Your task to perform on an android device: set default search engine in the chrome app Image 0: 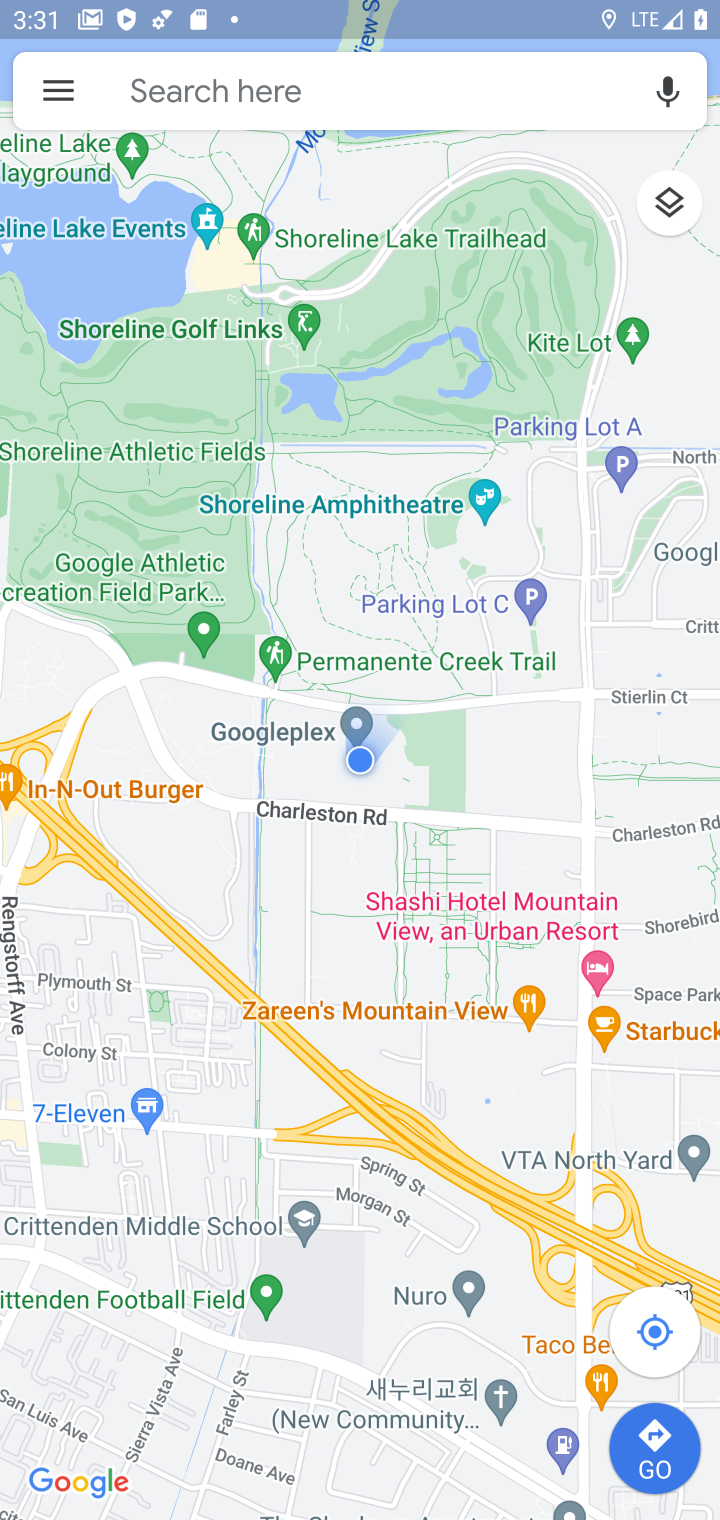
Step 0: press back button
Your task to perform on an android device: set default search engine in the chrome app Image 1: 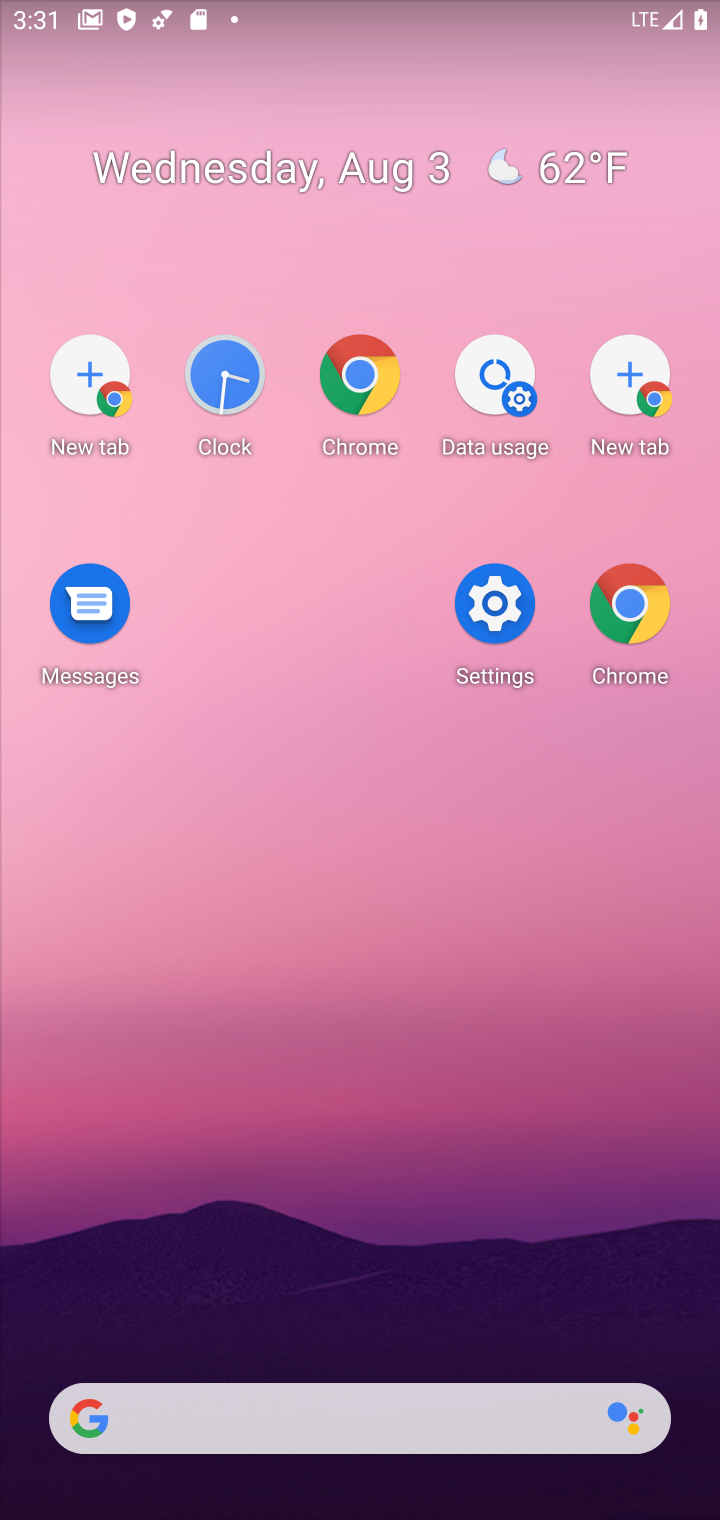
Step 1: click (457, 732)
Your task to perform on an android device: set default search engine in the chrome app Image 2: 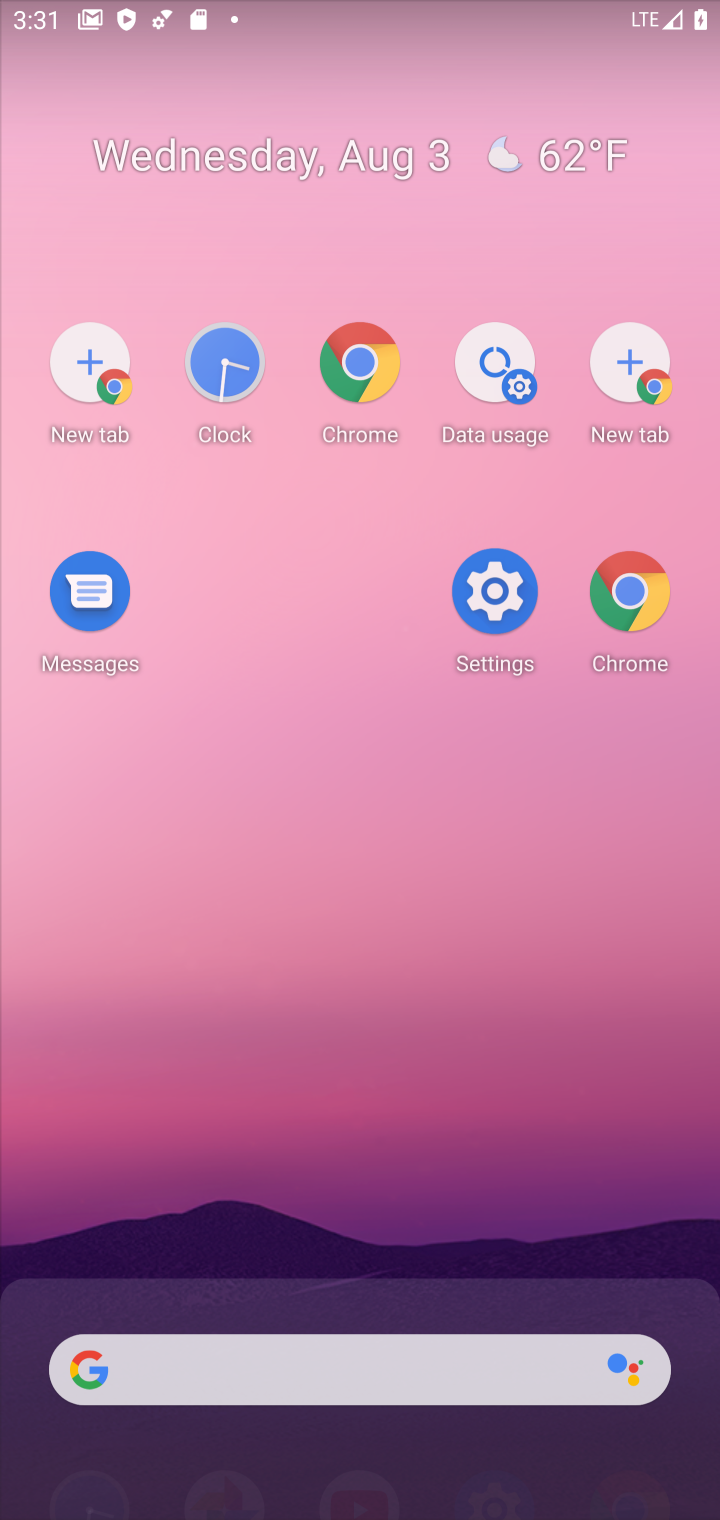
Step 2: drag from (545, 847) to (545, 490)
Your task to perform on an android device: set default search engine in the chrome app Image 3: 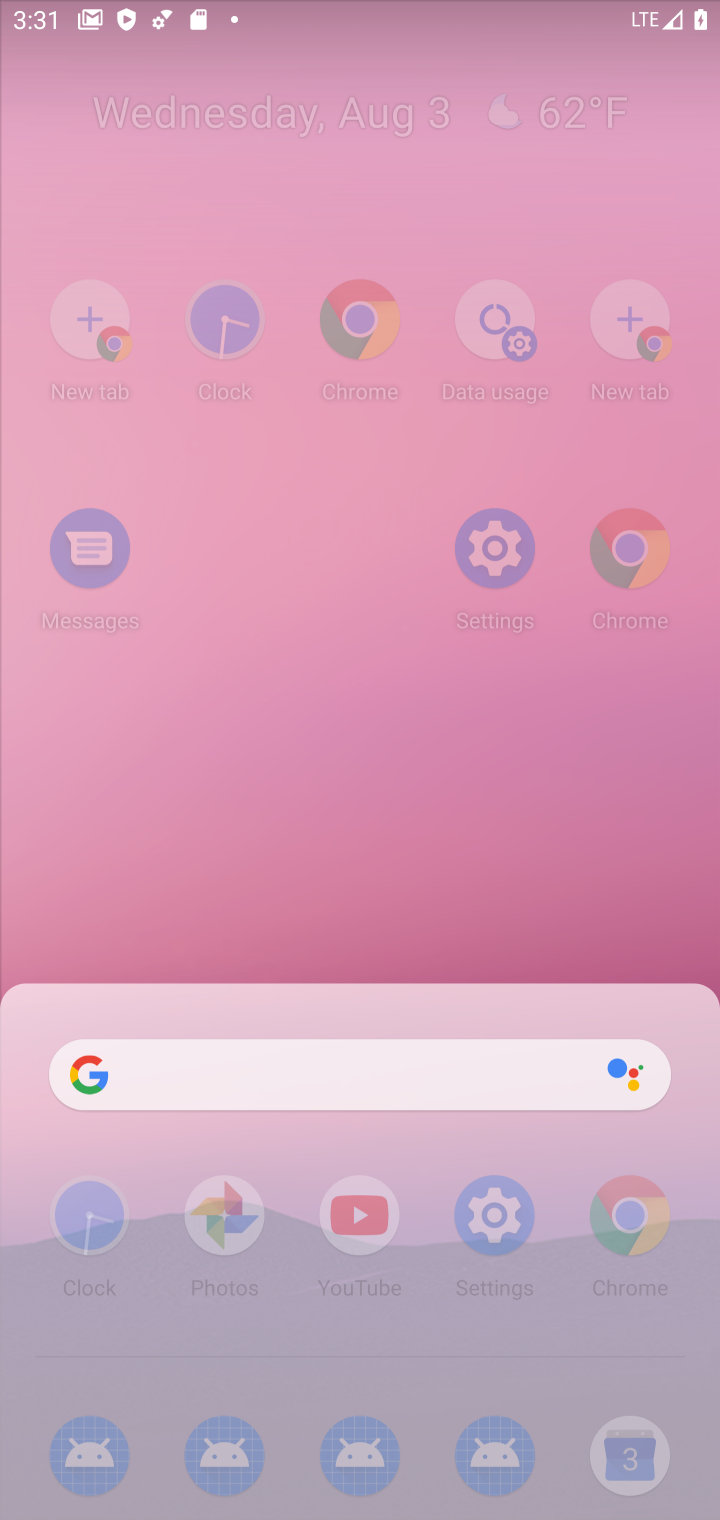
Step 3: drag from (373, 1036) to (383, 561)
Your task to perform on an android device: set default search engine in the chrome app Image 4: 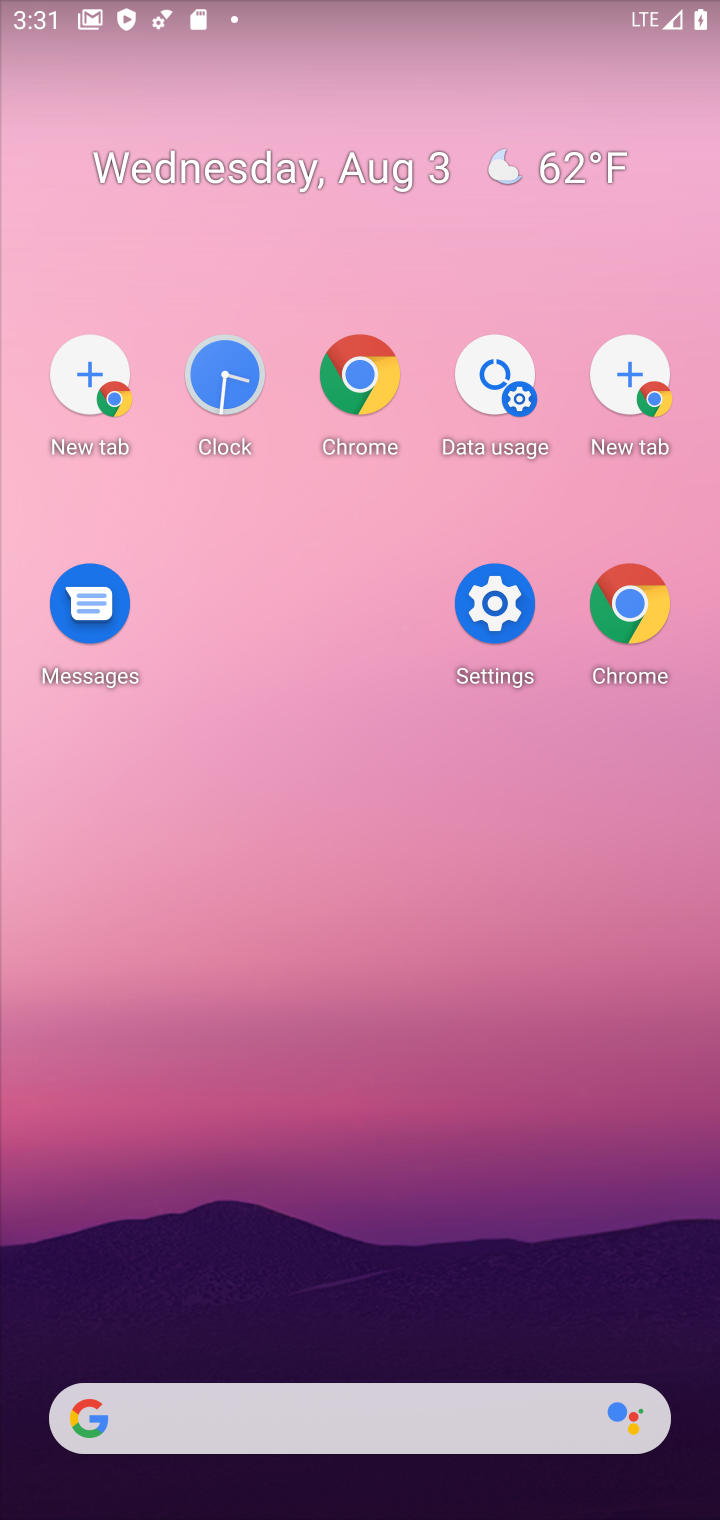
Step 4: drag from (412, 543) to (408, 666)
Your task to perform on an android device: set default search engine in the chrome app Image 5: 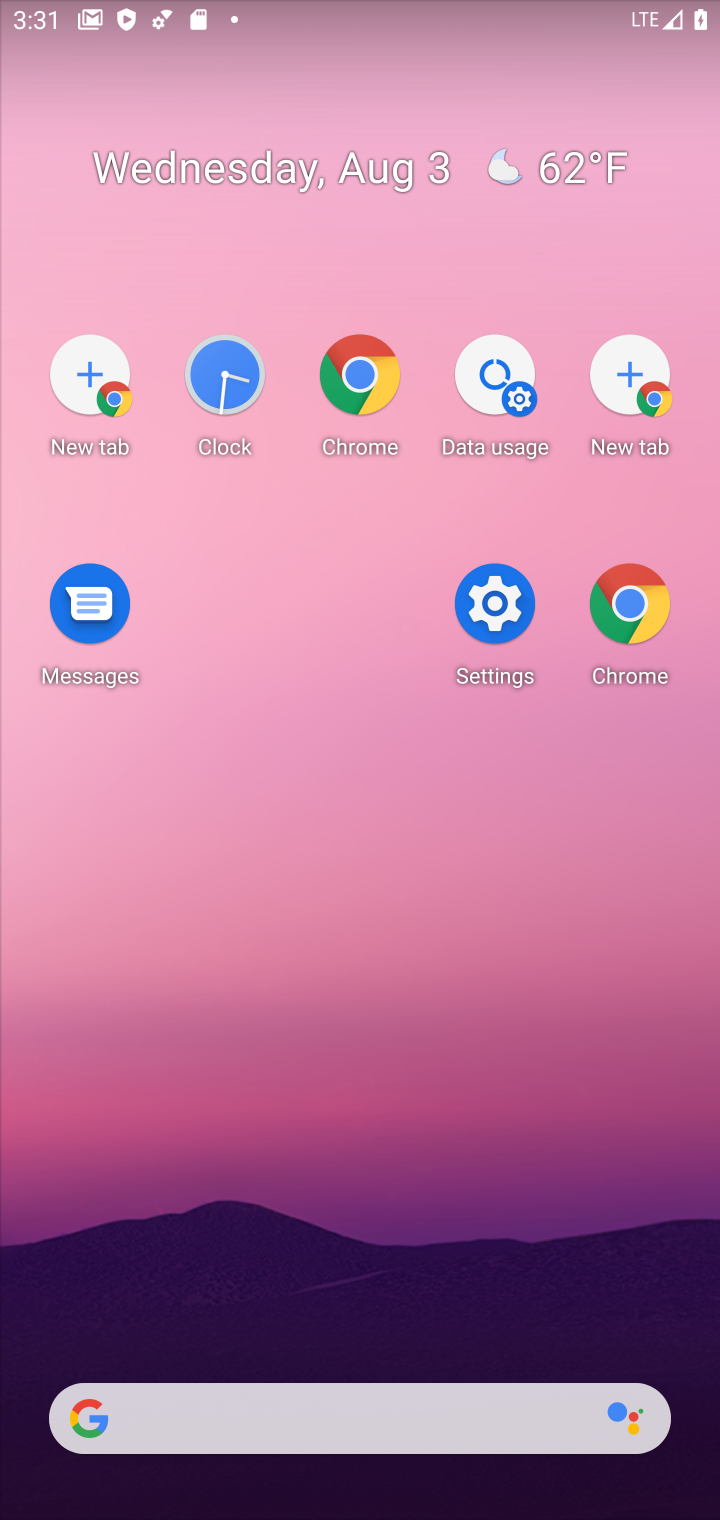
Step 5: click (240, 186)
Your task to perform on an android device: set default search engine in the chrome app Image 6: 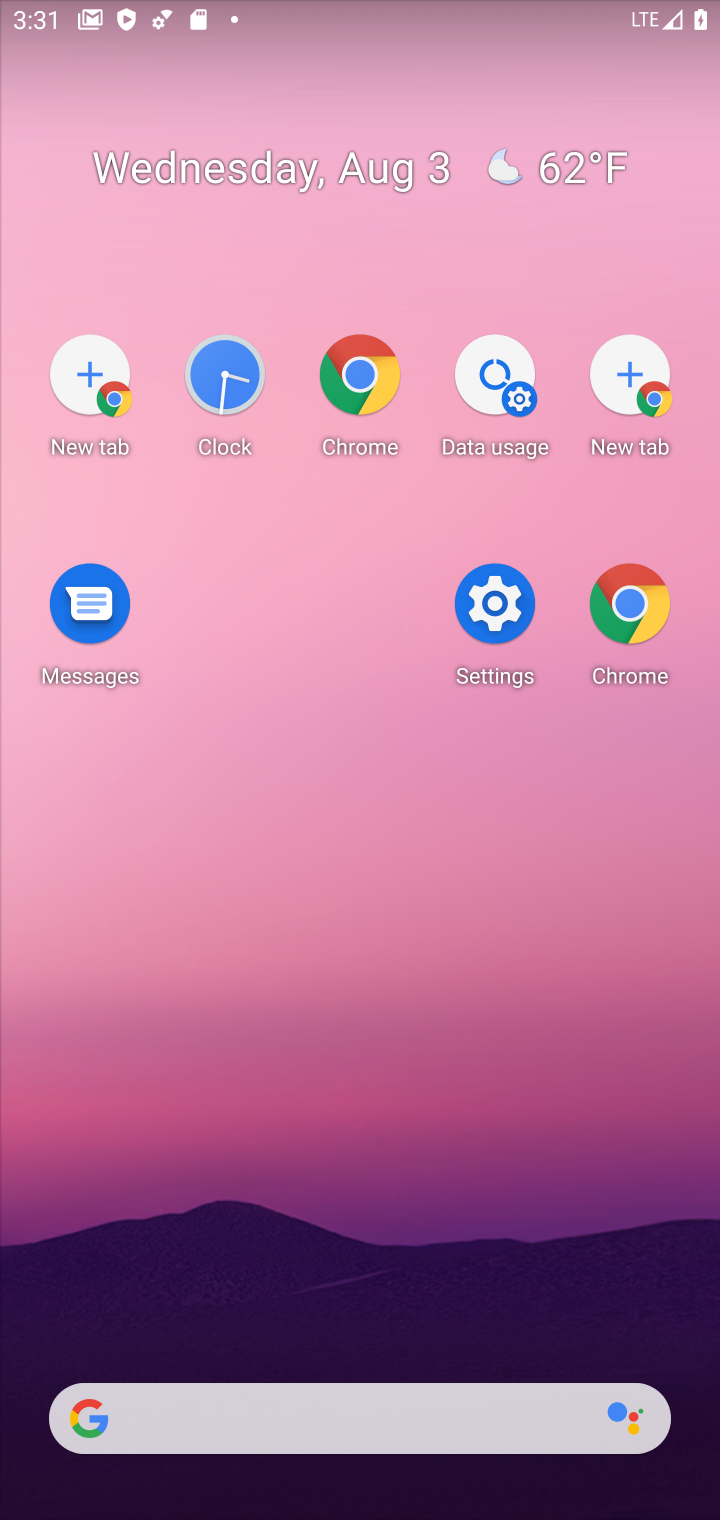
Step 6: drag from (427, 144) to (381, 236)
Your task to perform on an android device: set default search engine in the chrome app Image 7: 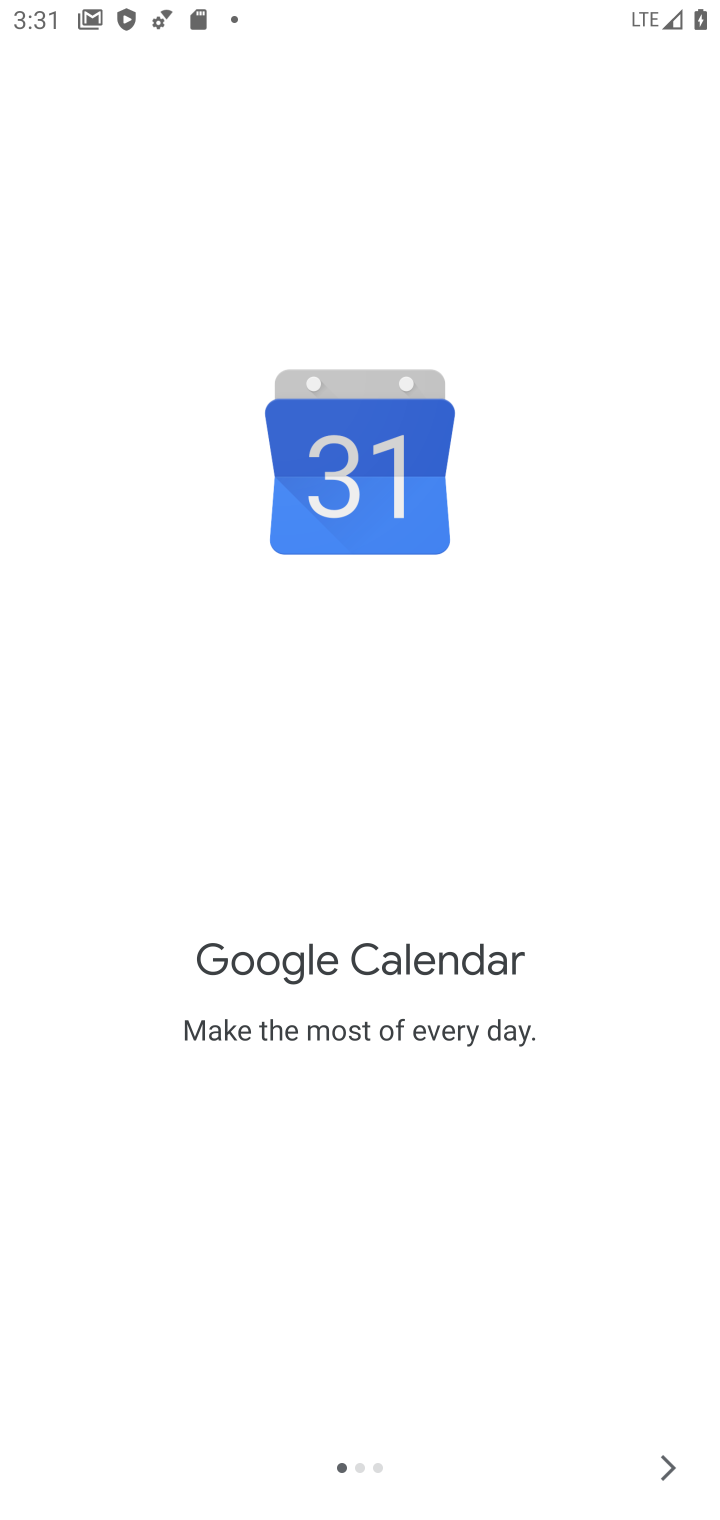
Step 7: press back button
Your task to perform on an android device: set default search engine in the chrome app Image 8: 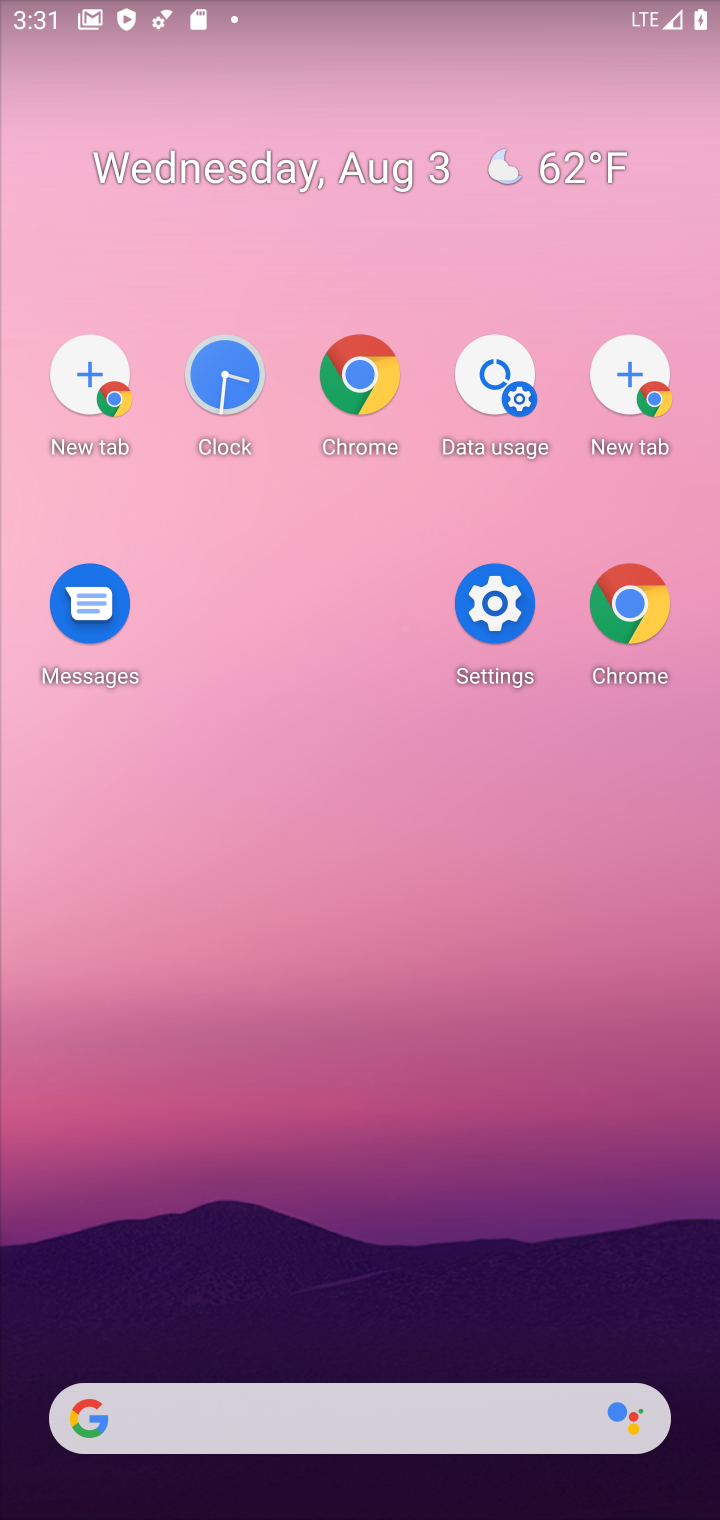
Step 8: drag from (402, 1253) to (370, 1176)
Your task to perform on an android device: set default search engine in the chrome app Image 9: 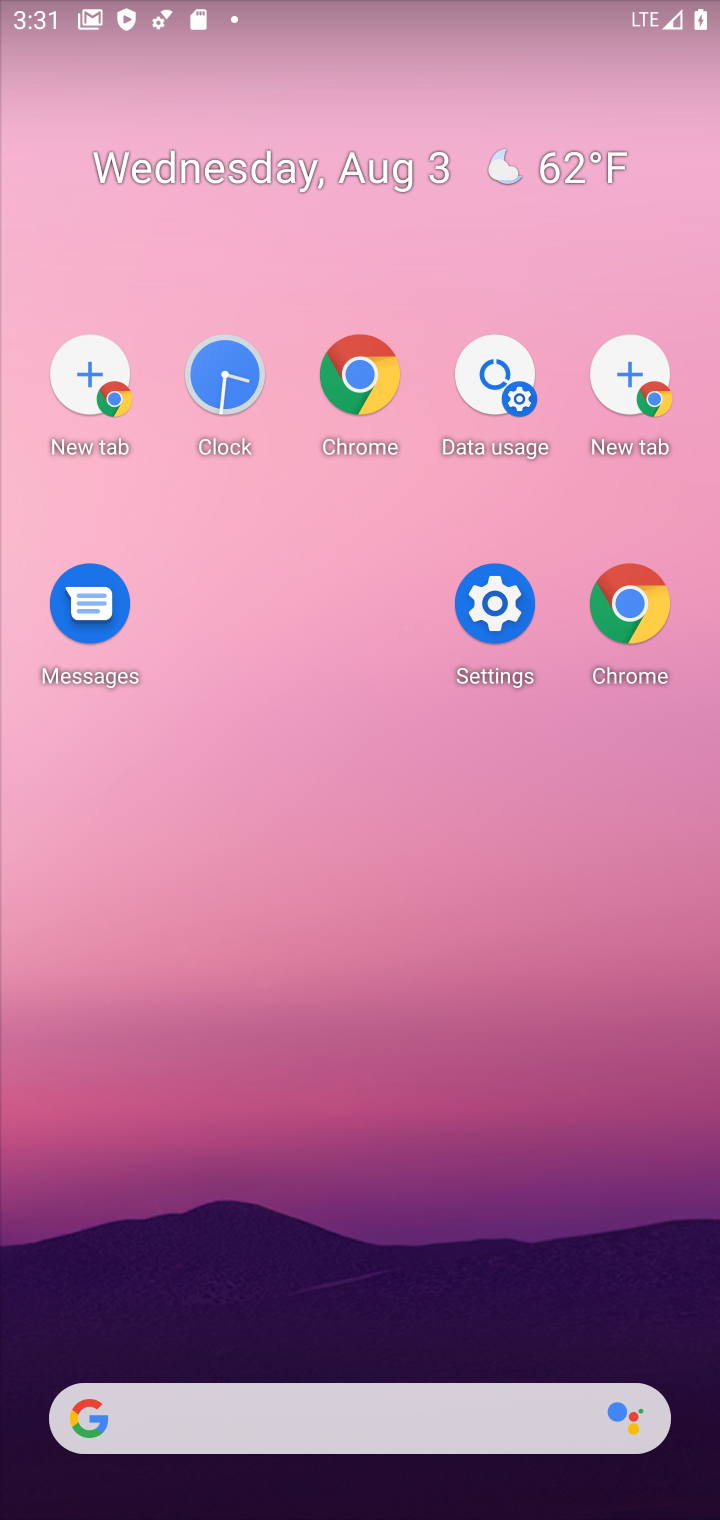
Step 9: drag from (361, 1213) to (449, 51)
Your task to perform on an android device: set default search engine in the chrome app Image 10: 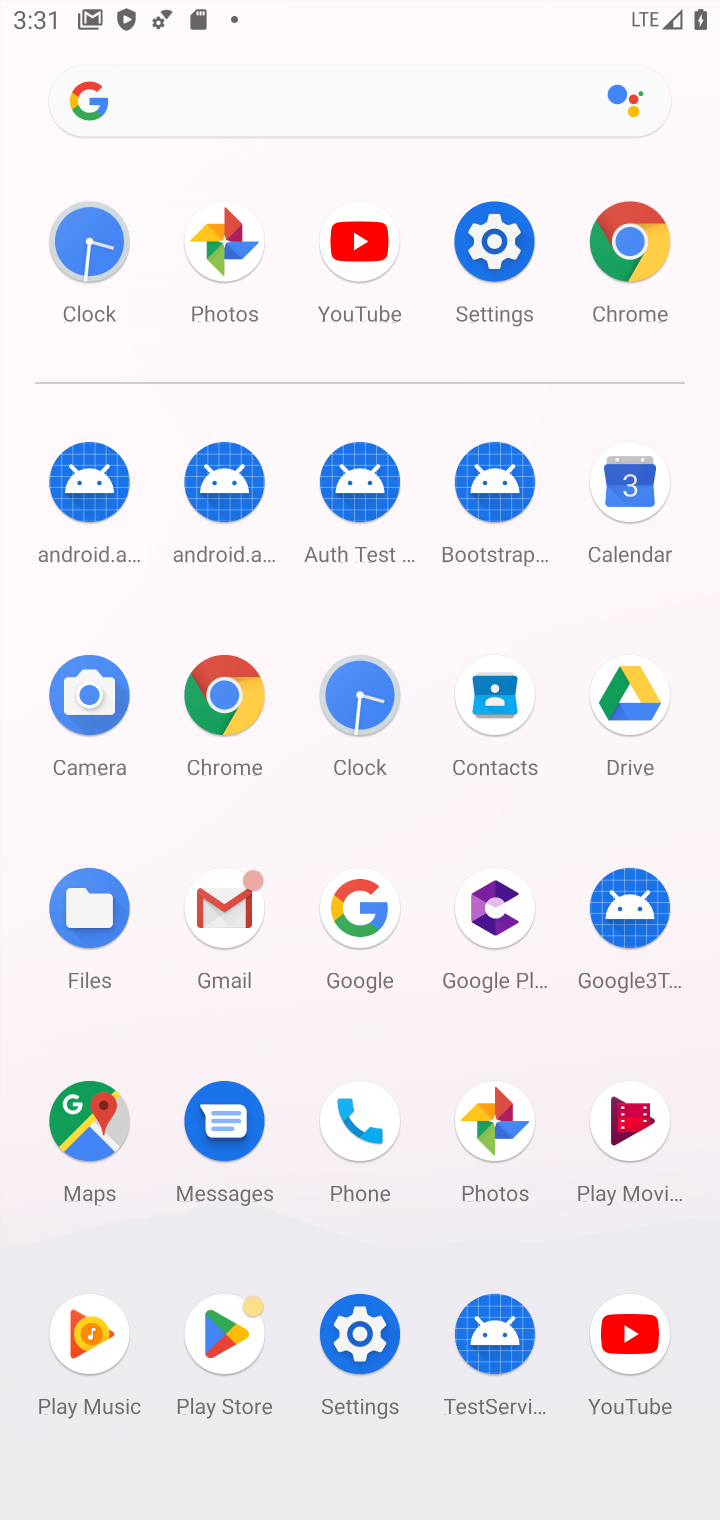
Step 10: click (619, 236)
Your task to perform on an android device: set default search engine in the chrome app Image 11: 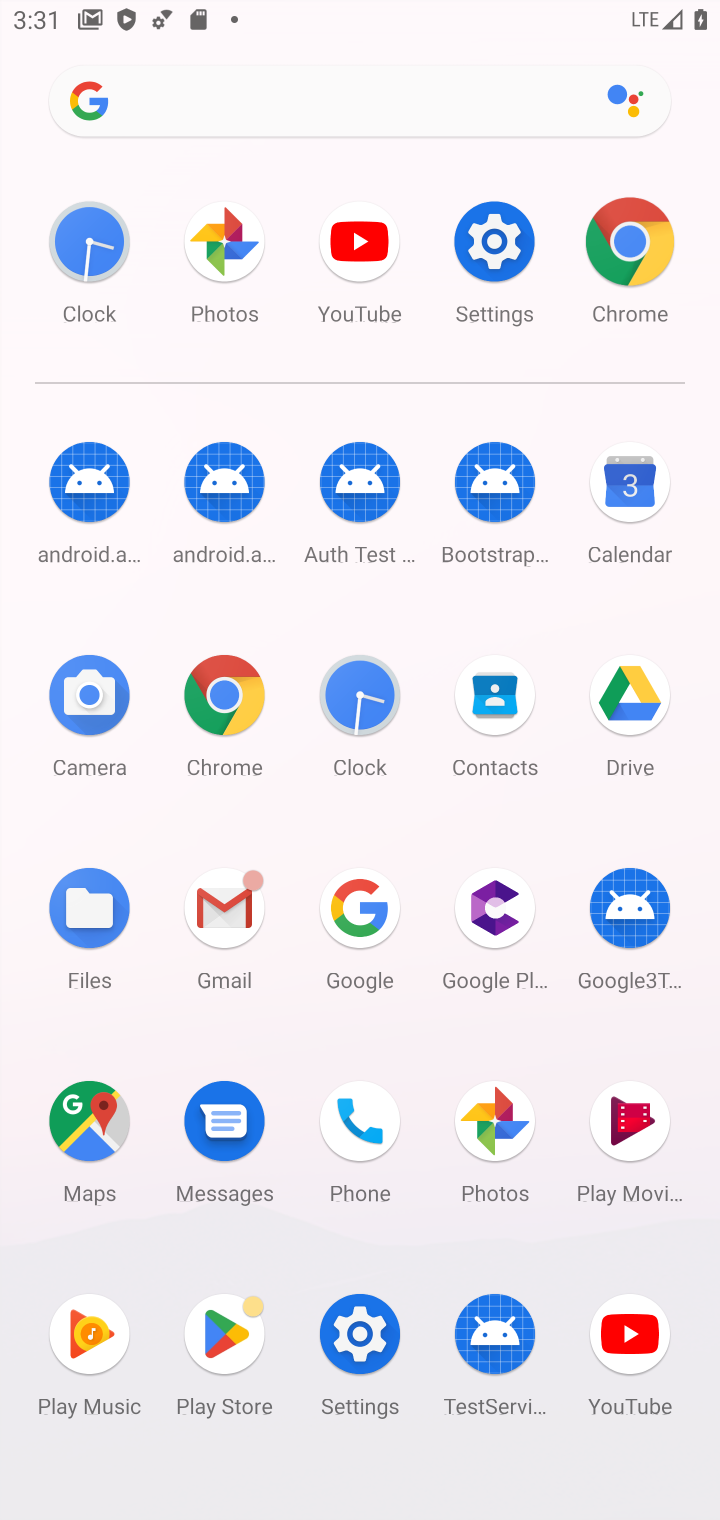
Step 11: click (623, 275)
Your task to perform on an android device: set default search engine in the chrome app Image 12: 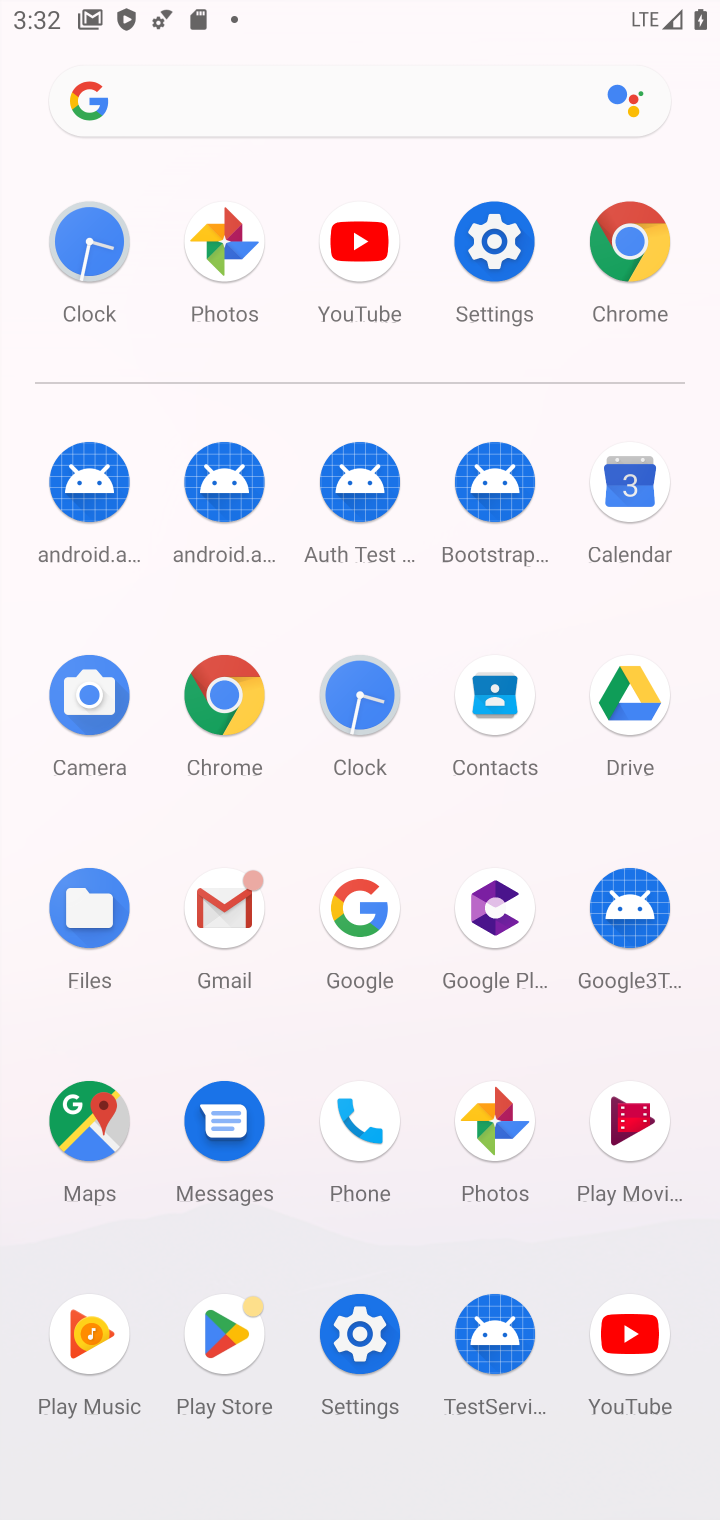
Step 12: click (636, 231)
Your task to perform on an android device: set default search engine in the chrome app Image 13: 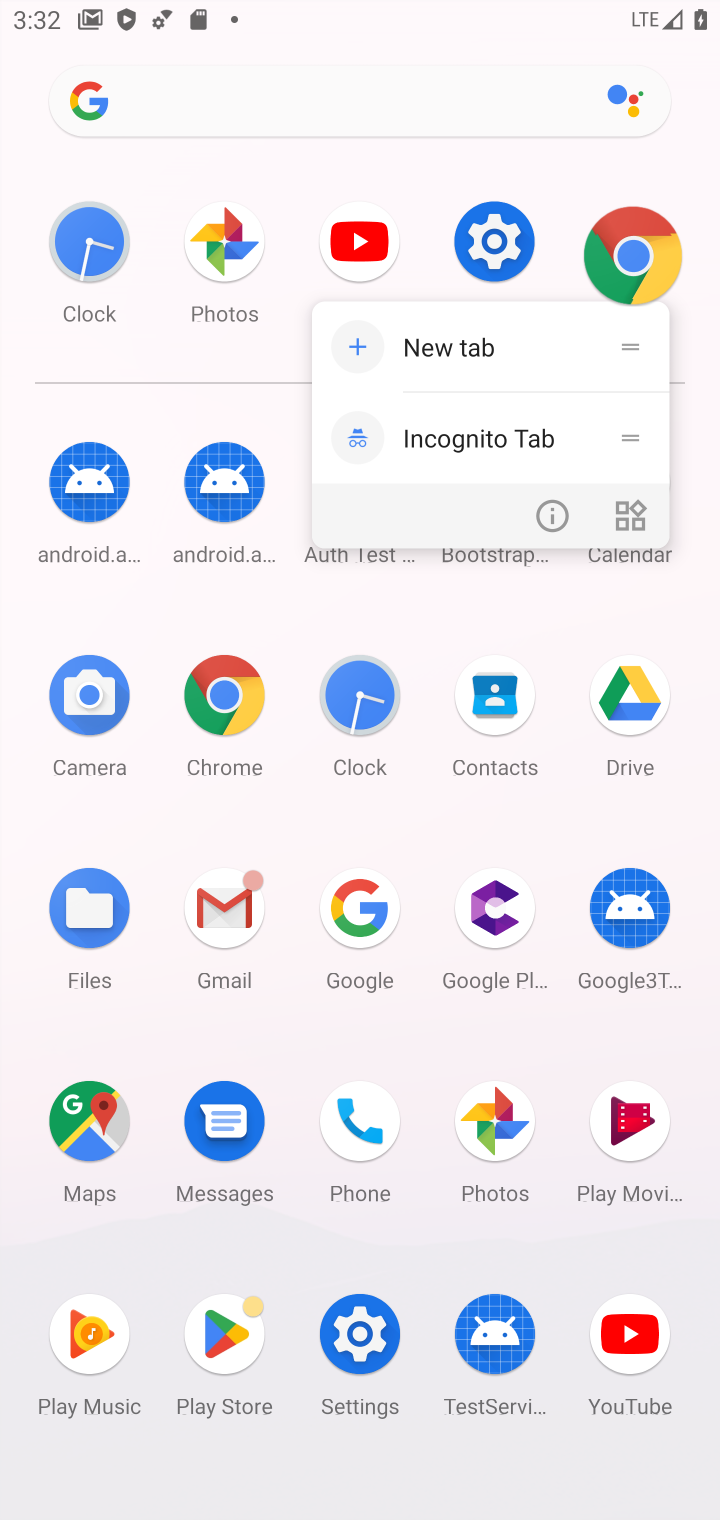
Step 13: click (639, 245)
Your task to perform on an android device: set default search engine in the chrome app Image 14: 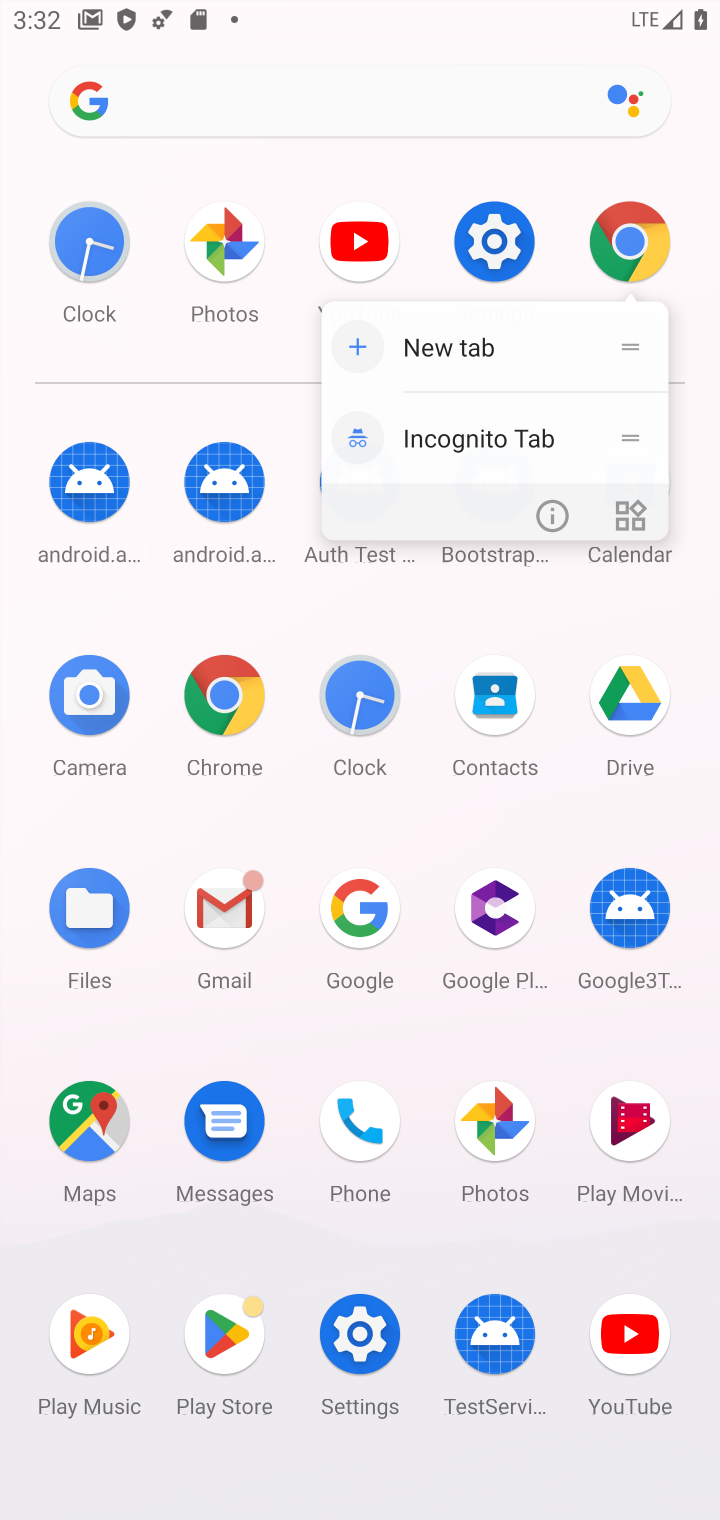
Step 14: click (641, 249)
Your task to perform on an android device: set default search engine in the chrome app Image 15: 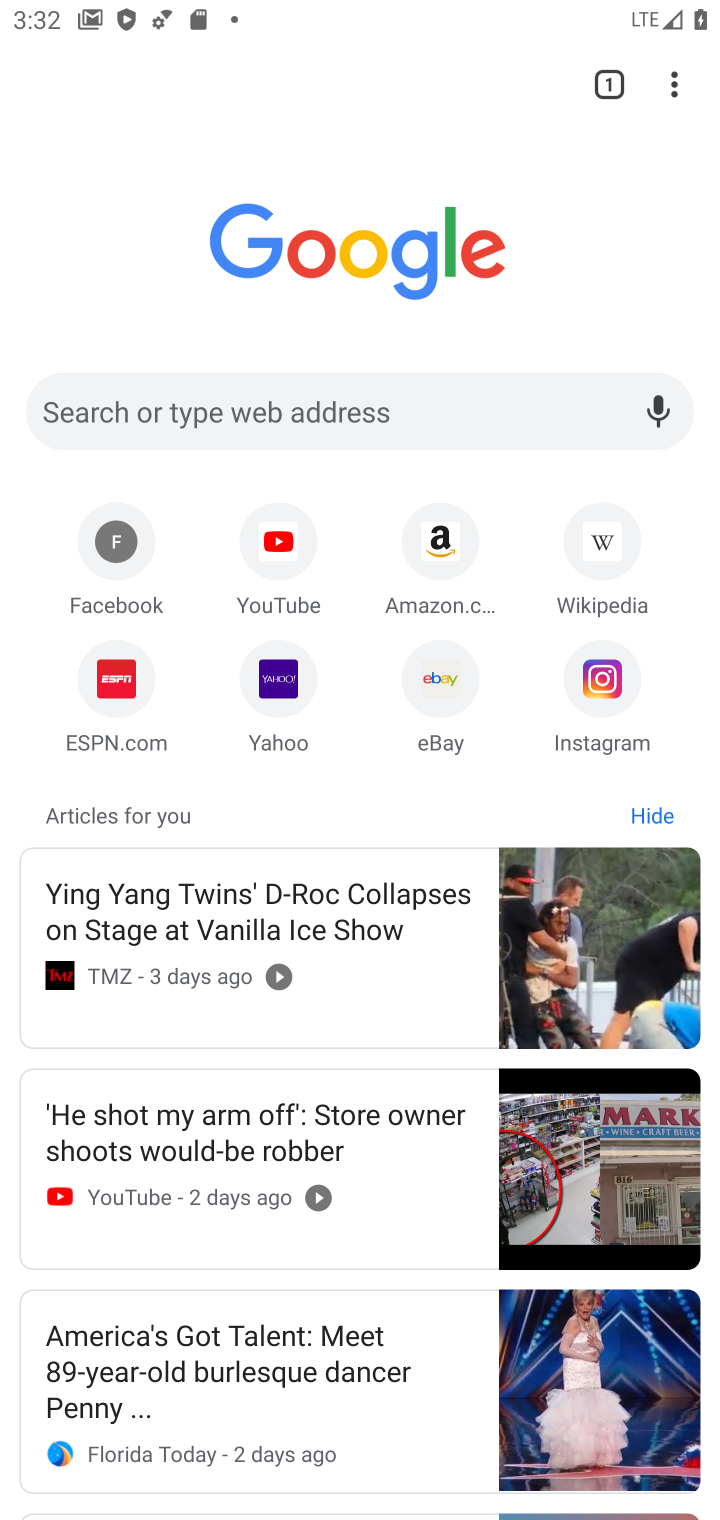
Step 15: drag from (570, 428) to (499, 682)
Your task to perform on an android device: set default search engine in the chrome app Image 16: 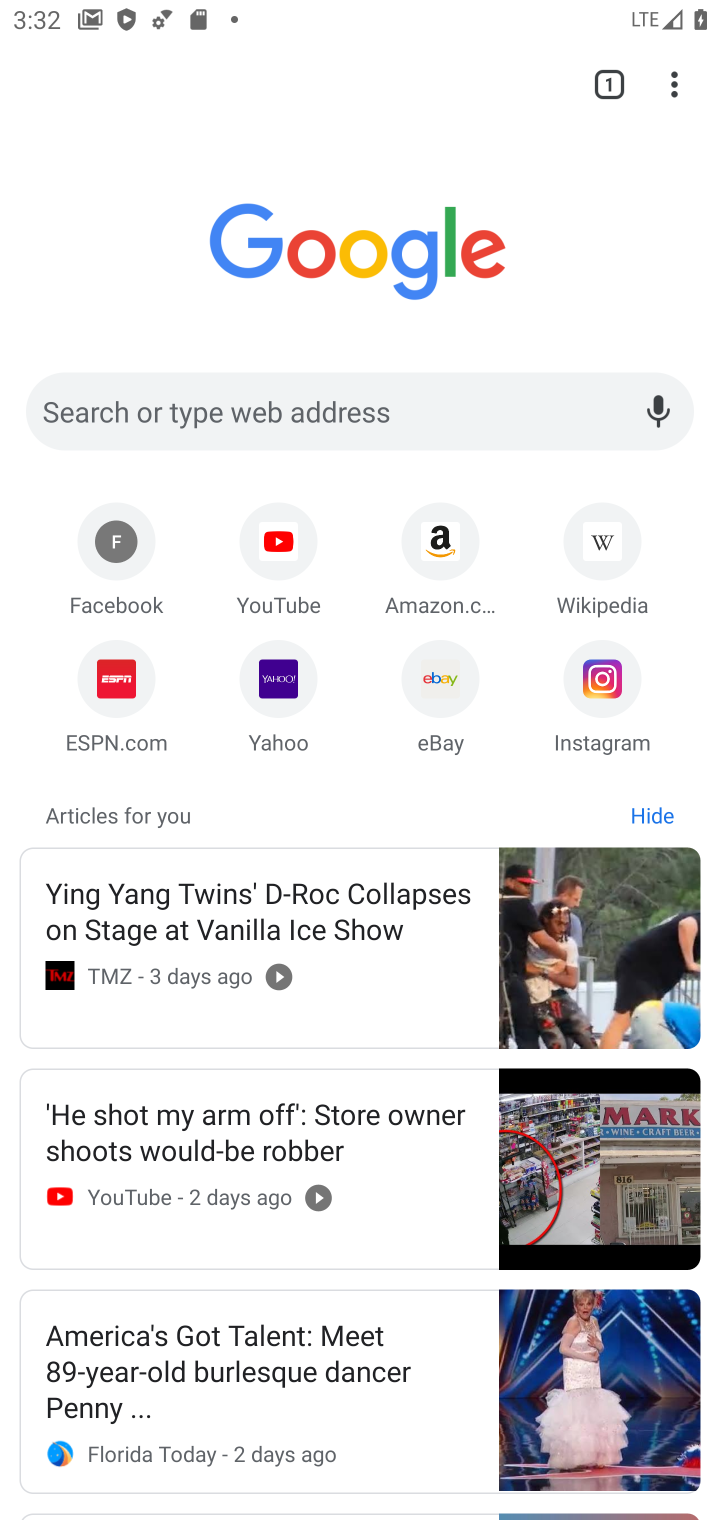
Step 16: drag from (665, 73) to (384, 707)
Your task to perform on an android device: set default search engine in the chrome app Image 17: 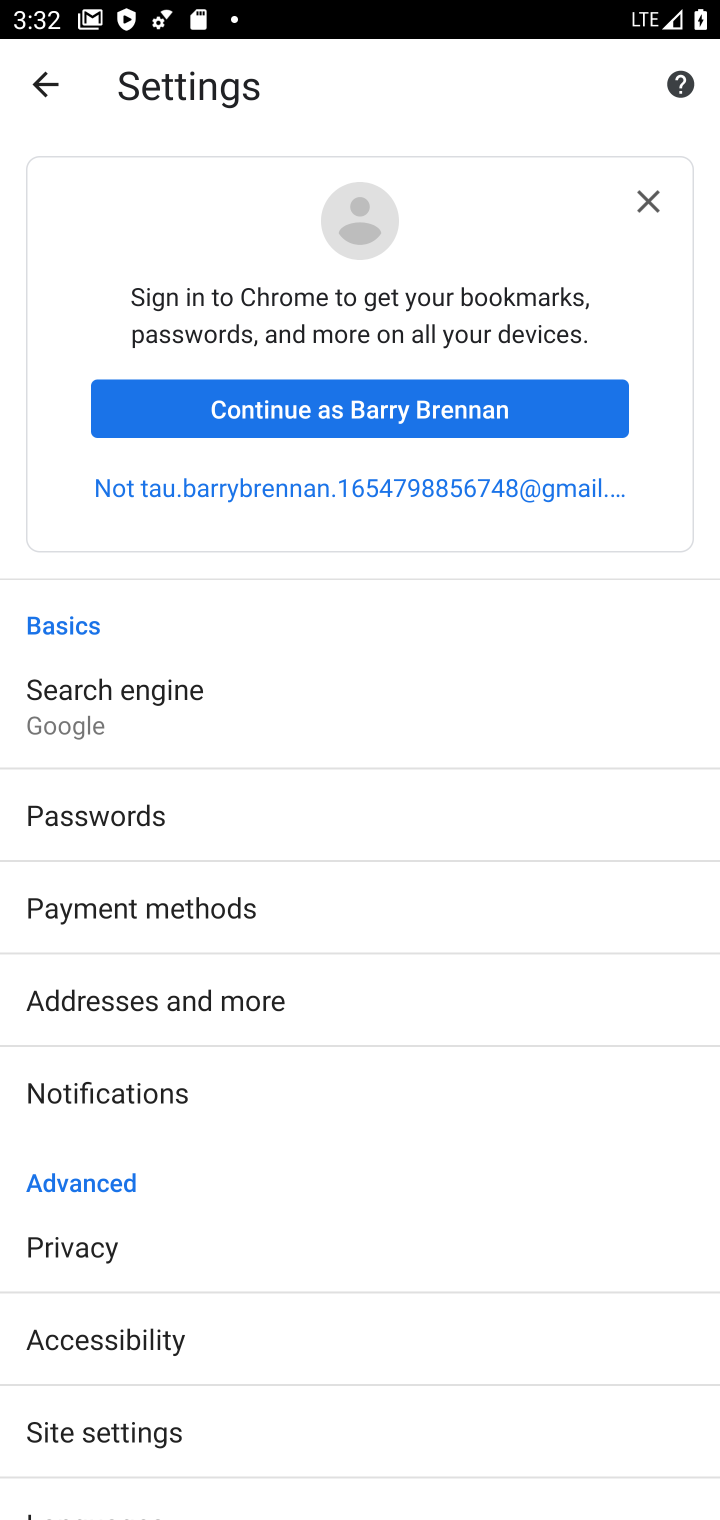
Step 17: click (82, 692)
Your task to perform on an android device: set default search engine in the chrome app Image 18: 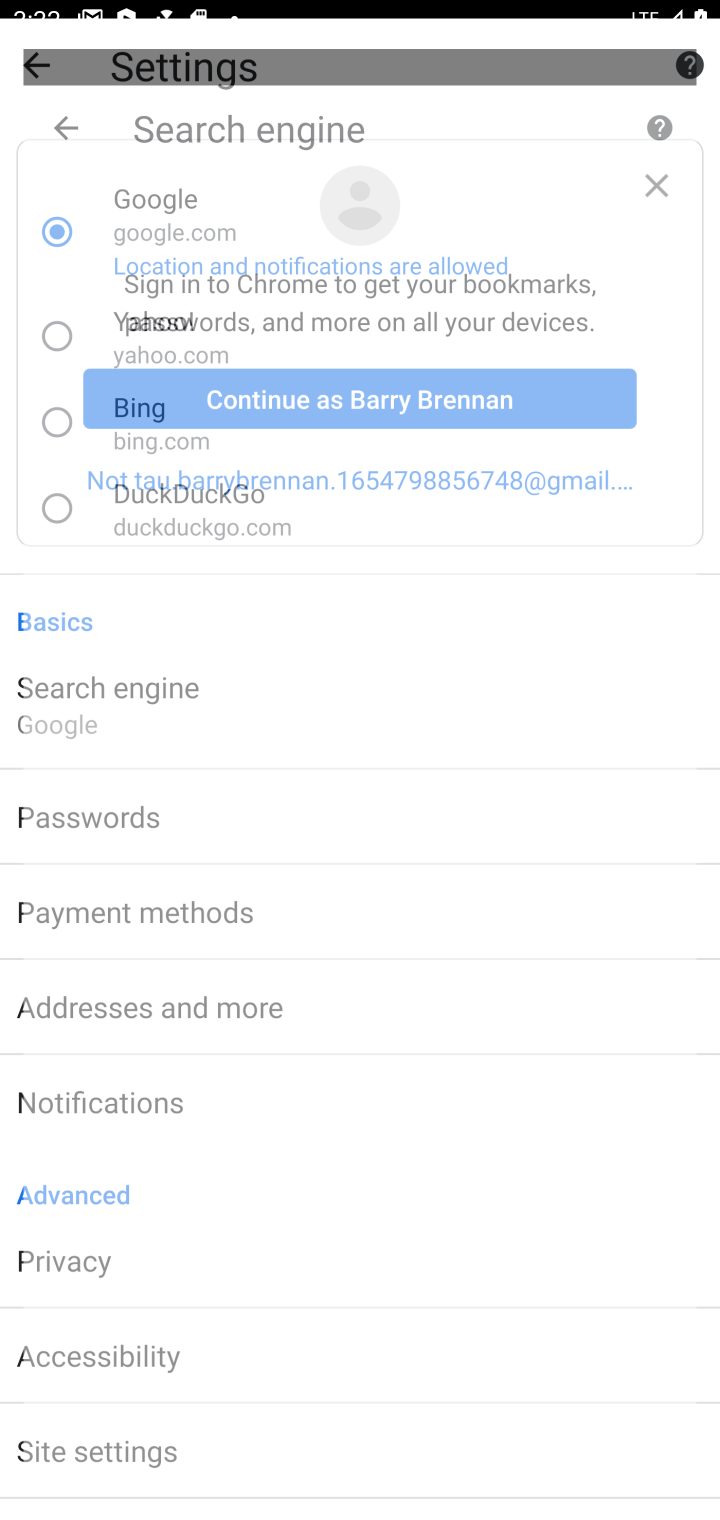
Step 18: click (82, 692)
Your task to perform on an android device: set default search engine in the chrome app Image 19: 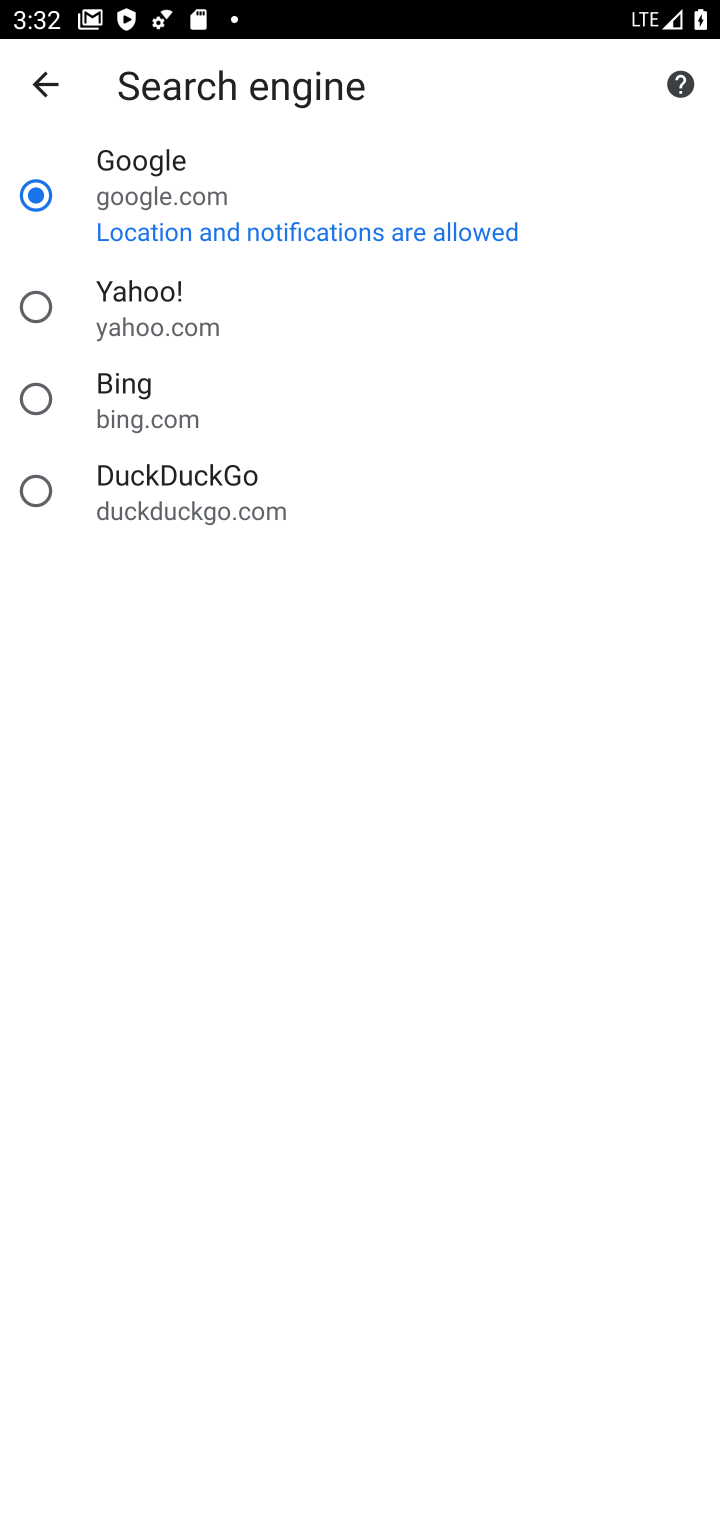
Step 19: click (82, 692)
Your task to perform on an android device: set default search engine in the chrome app Image 20: 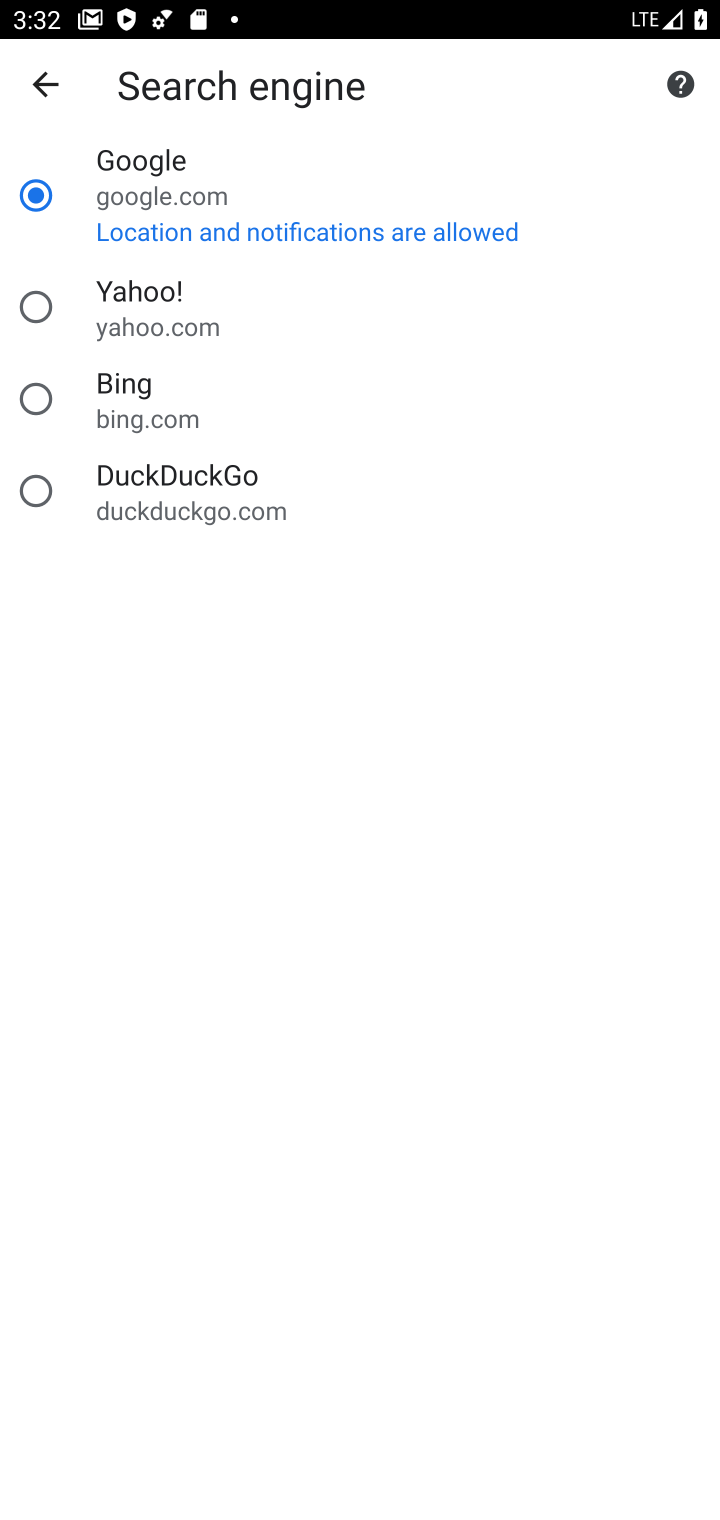
Step 20: click (82, 692)
Your task to perform on an android device: set default search engine in the chrome app Image 21: 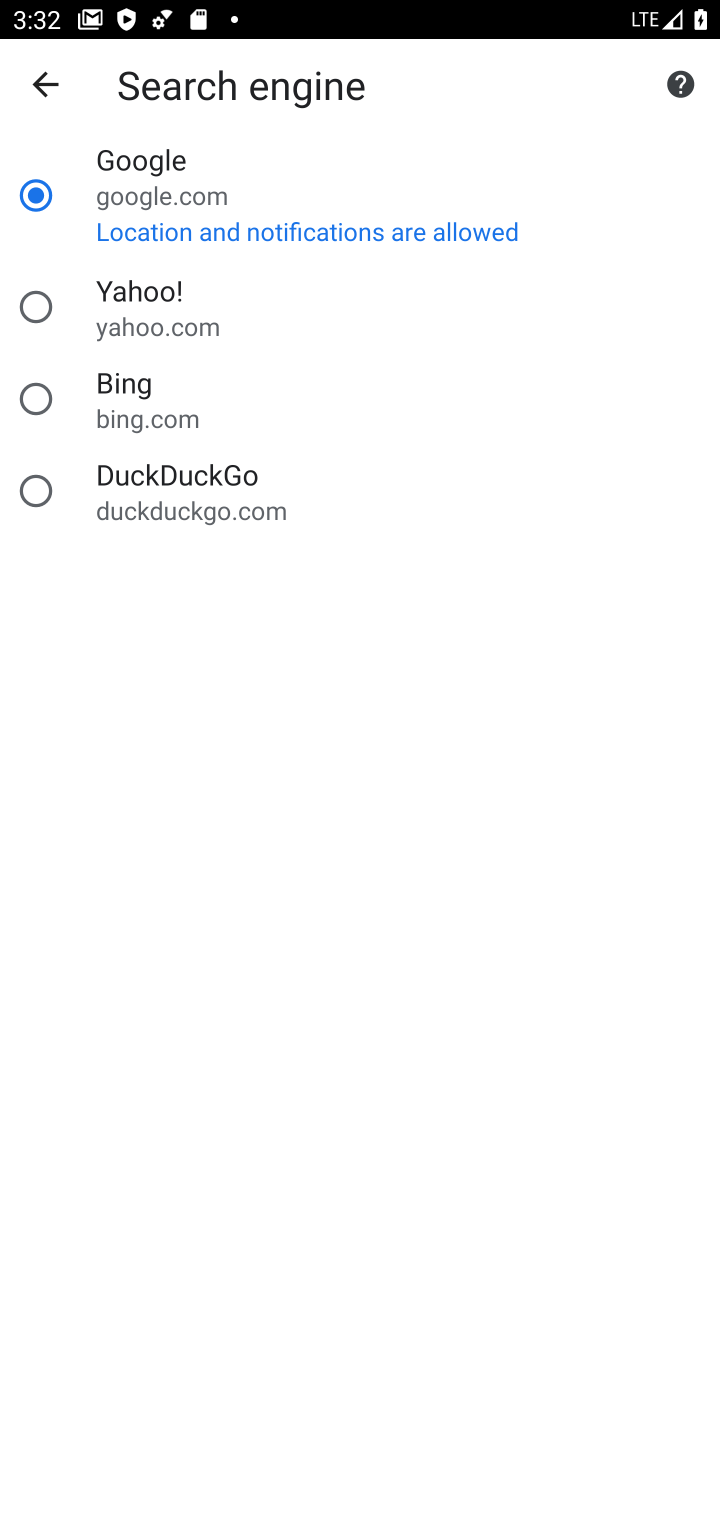
Step 21: click (26, 298)
Your task to perform on an android device: set default search engine in the chrome app Image 22: 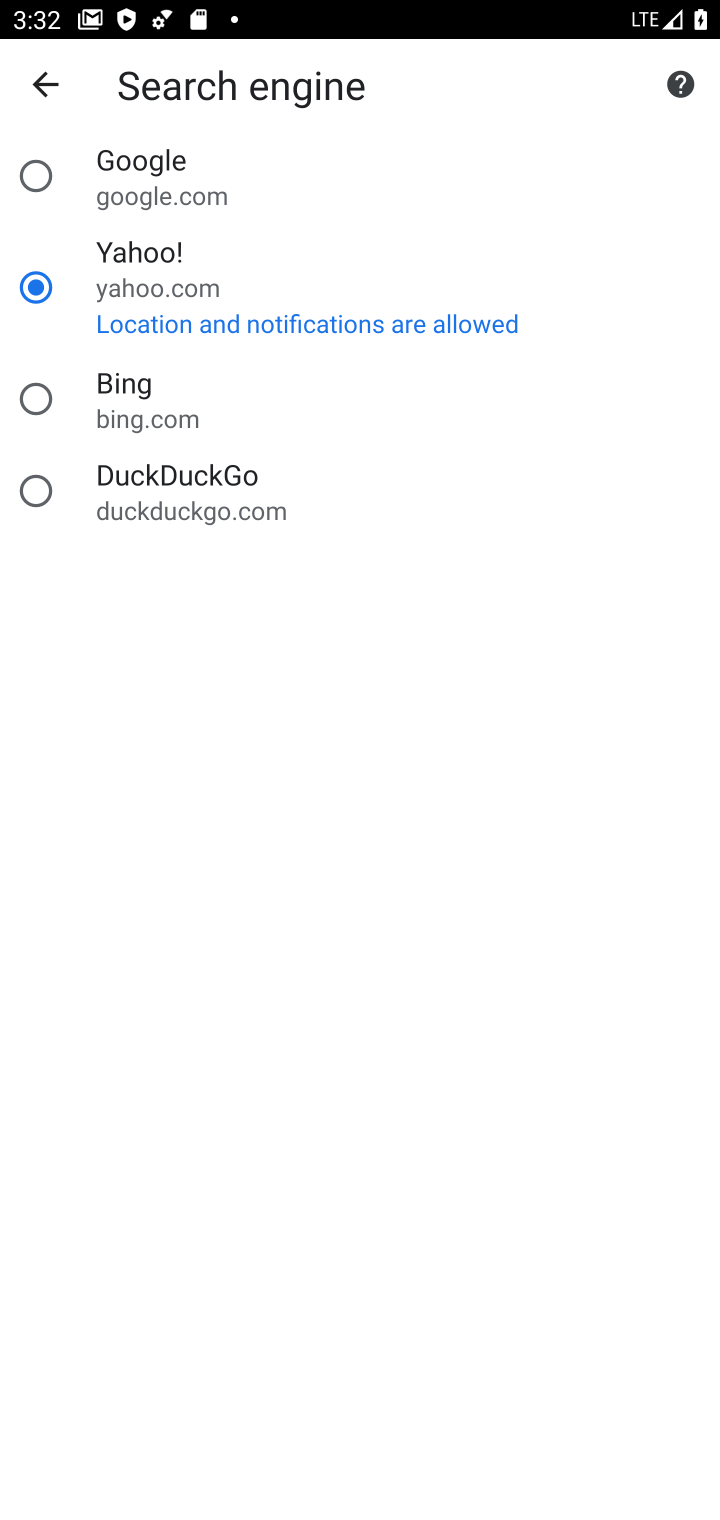
Step 22: click (48, 293)
Your task to perform on an android device: set default search engine in the chrome app Image 23: 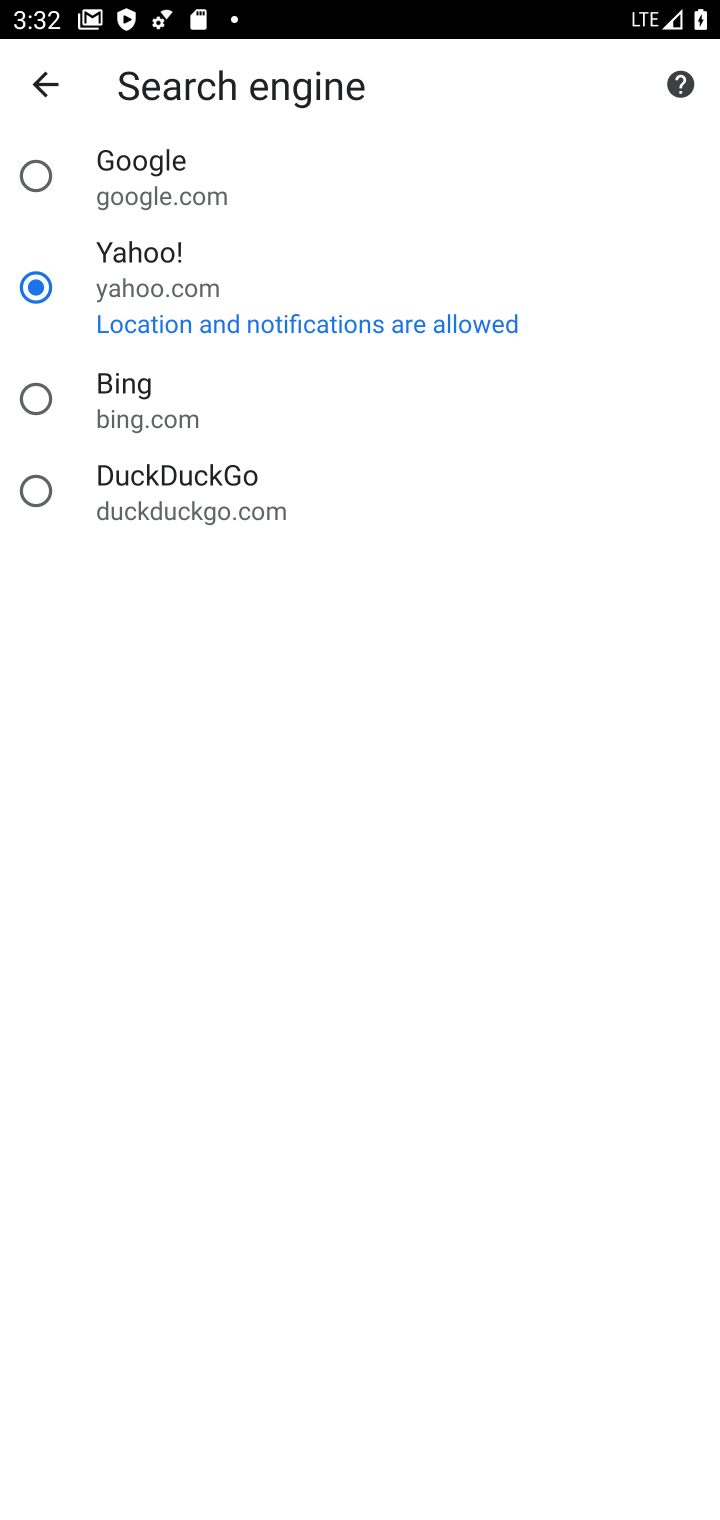
Step 23: task complete